Your task to perform on an android device: change alarm snooze length Image 0: 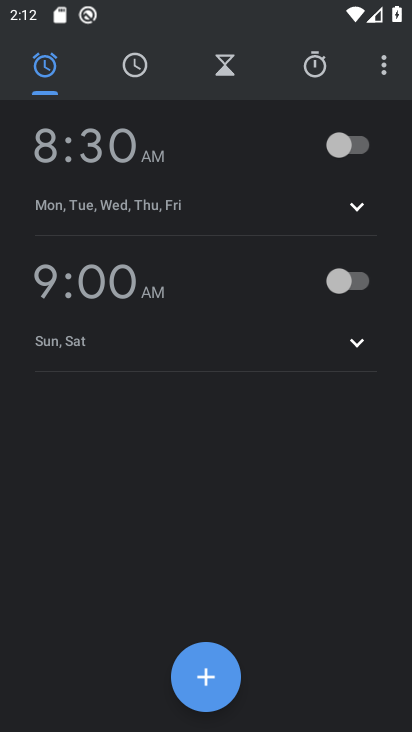
Step 0: press home button
Your task to perform on an android device: change alarm snooze length Image 1: 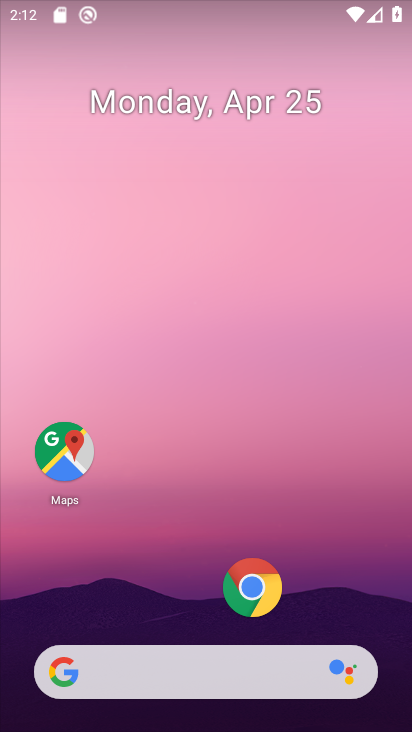
Step 1: drag from (181, 619) to (253, 53)
Your task to perform on an android device: change alarm snooze length Image 2: 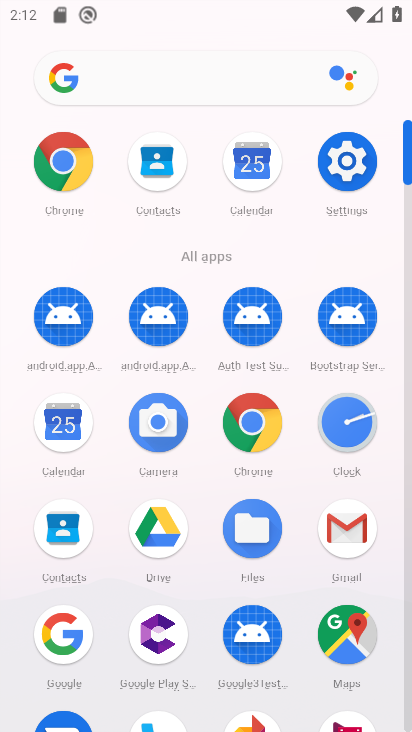
Step 2: click (340, 408)
Your task to perform on an android device: change alarm snooze length Image 3: 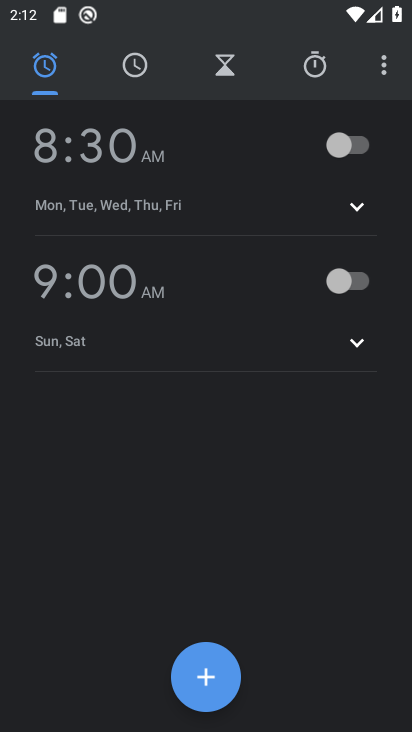
Step 3: click (385, 61)
Your task to perform on an android device: change alarm snooze length Image 4: 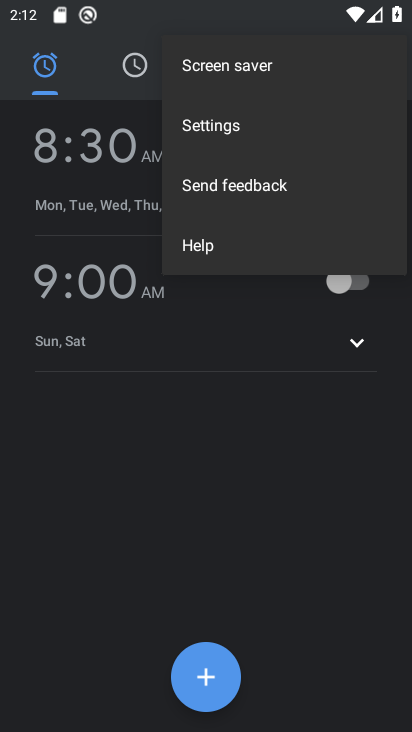
Step 4: click (249, 126)
Your task to perform on an android device: change alarm snooze length Image 5: 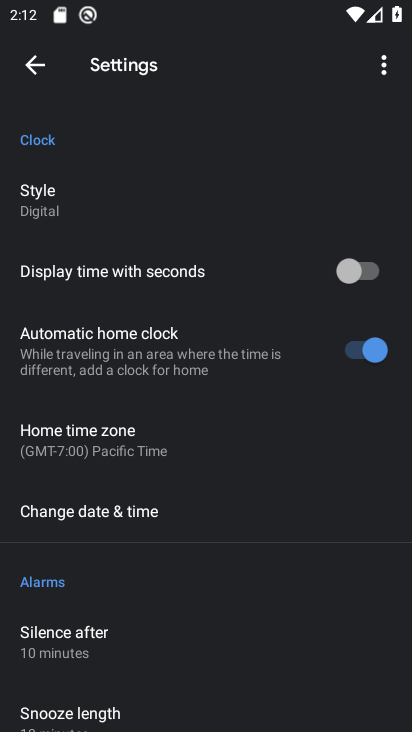
Step 5: click (154, 712)
Your task to perform on an android device: change alarm snooze length Image 6: 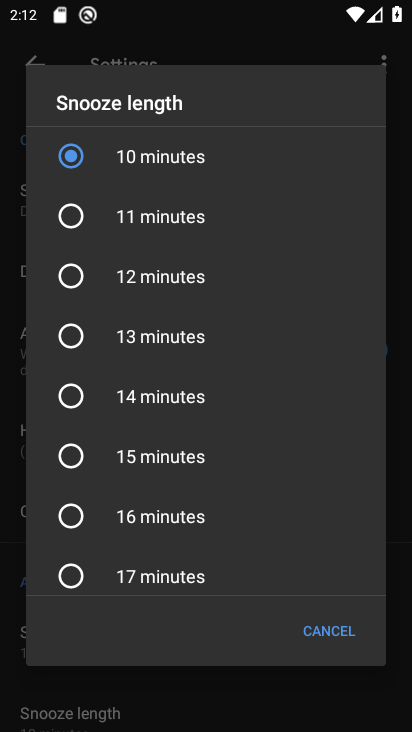
Step 6: click (69, 210)
Your task to perform on an android device: change alarm snooze length Image 7: 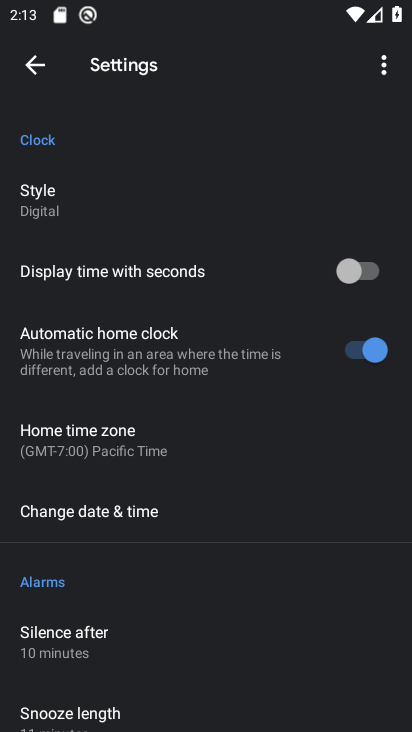
Step 7: task complete